Your task to perform on an android device: What is the recent news? Image 0: 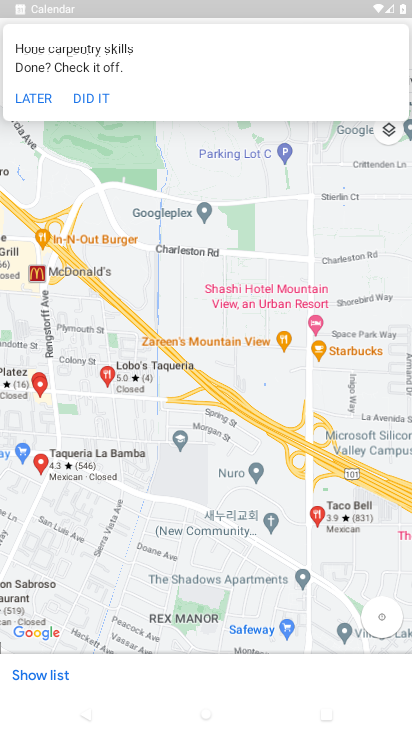
Step 0: press home button
Your task to perform on an android device: What is the recent news? Image 1: 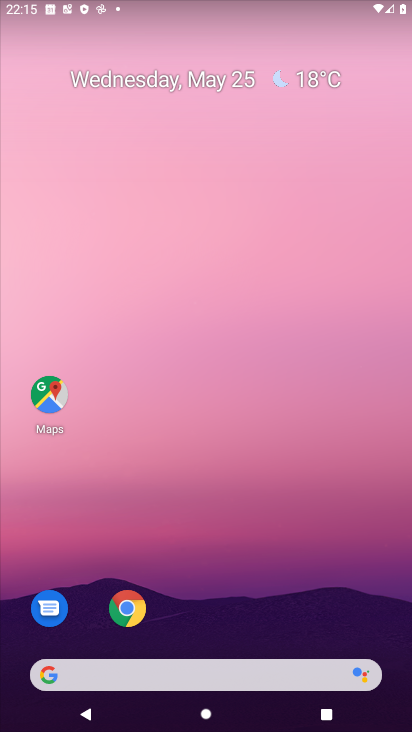
Step 1: drag from (265, 425) to (189, 0)
Your task to perform on an android device: What is the recent news? Image 2: 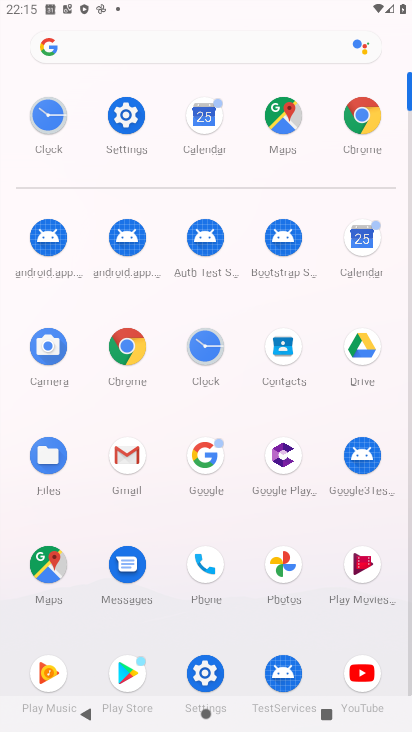
Step 2: click (214, 451)
Your task to perform on an android device: What is the recent news? Image 3: 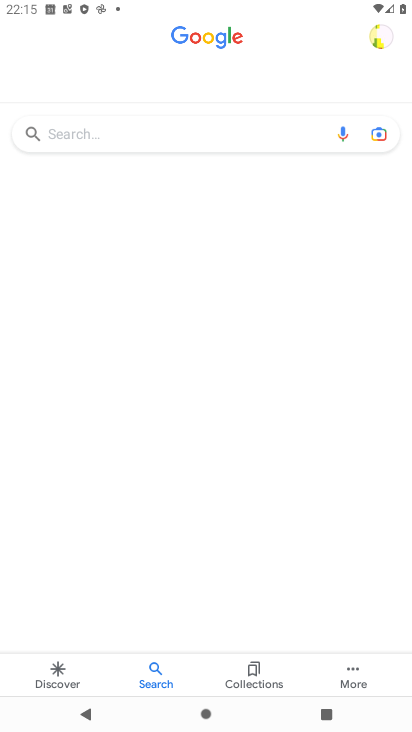
Step 3: click (148, 132)
Your task to perform on an android device: What is the recent news? Image 4: 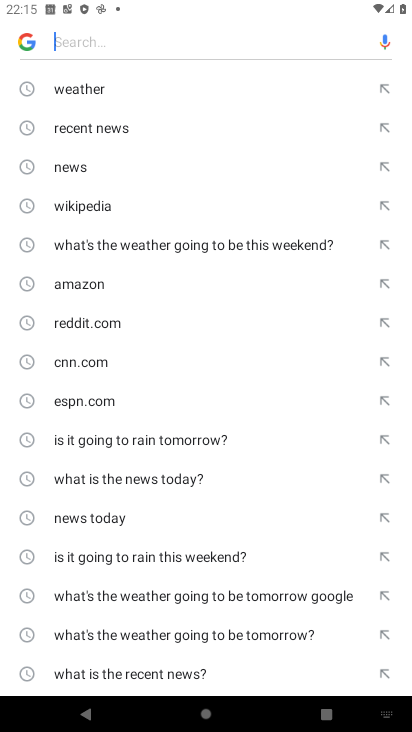
Step 4: click (119, 126)
Your task to perform on an android device: What is the recent news? Image 5: 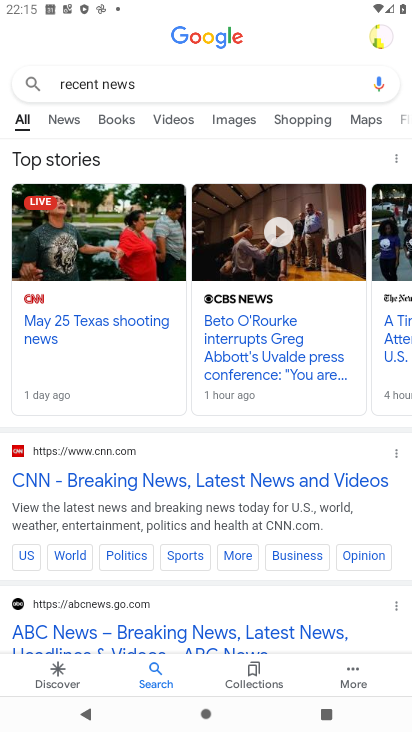
Step 5: task complete